Your task to perform on an android device: Is it going to rain today? Image 0: 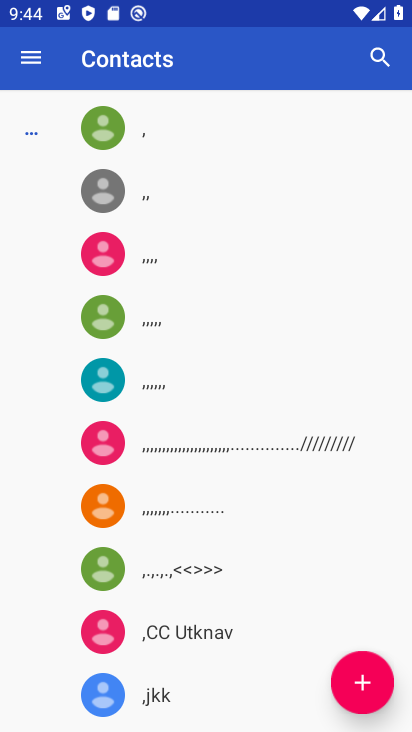
Step 0: press back button
Your task to perform on an android device: Is it going to rain today? Image 1: 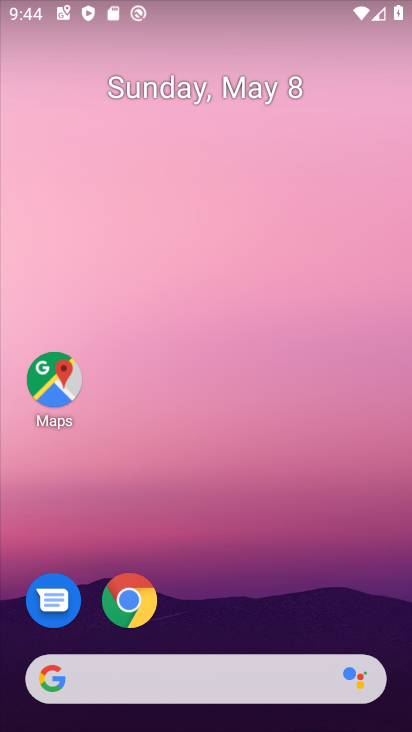
Step 1: drag from (61, 240) to (267, 172)
Your task to perform on an android device: Is it going to rain today? Image 2: 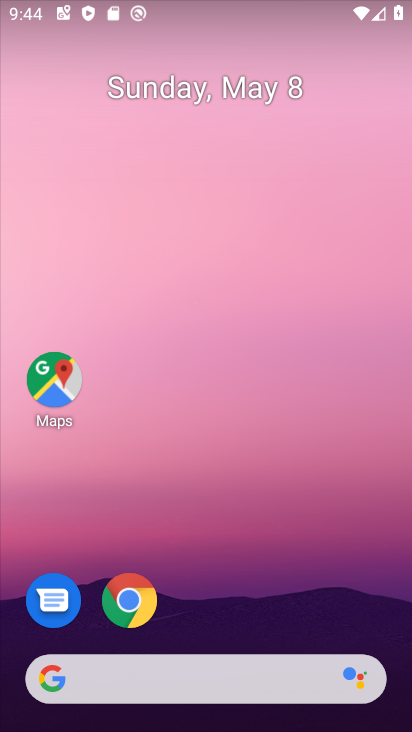
Step 2: drag from (11, 229) to (387, 238)
Your task to perform on an android device: Is it going to rain today? Image 3: 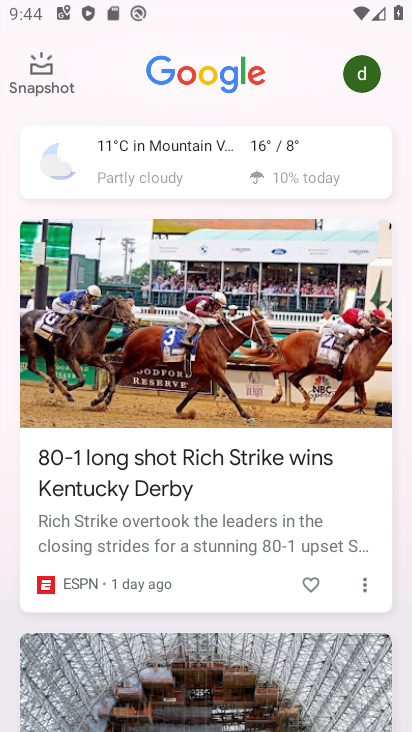
Step 3: click (73, 155)
Your task to perform on an android device: Is it going to rain today? Image 4: 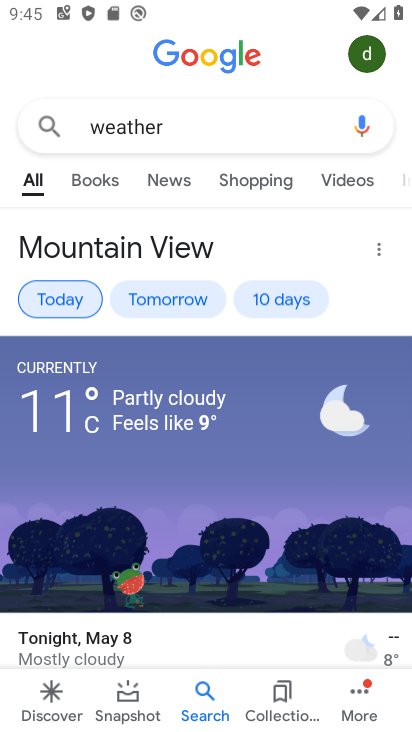
Step 4: task complete